Your task to perform on an android device: Go to network settings Image 0: 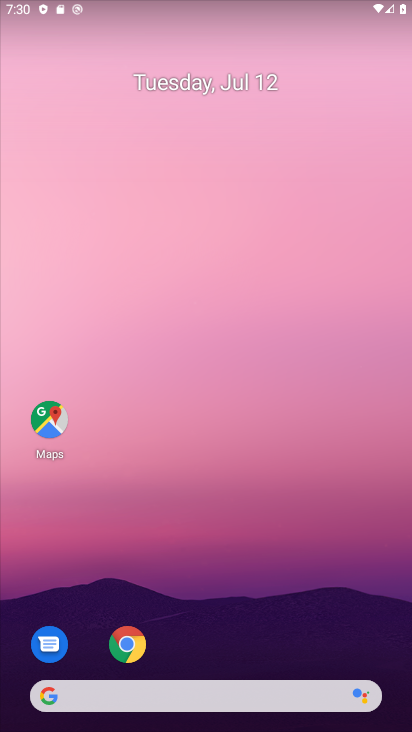
Step 0: drag from (225, 677) to (408, 278)
Your task to perform on an android device: Go to network settings Image 1: 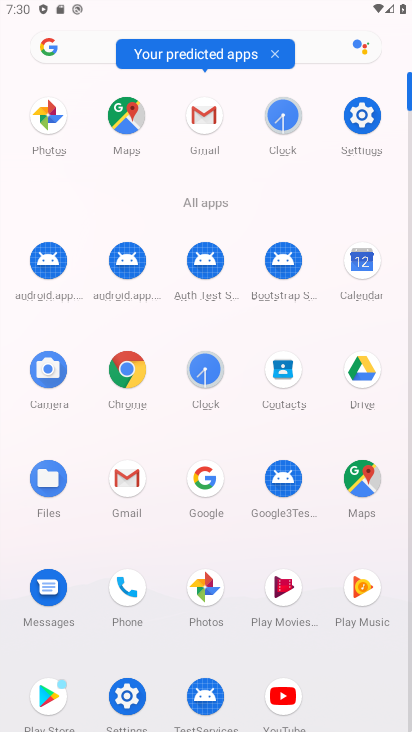
Step 1: click (368, 111)
Your task to perform on an android device: Go to network settings Image 2: 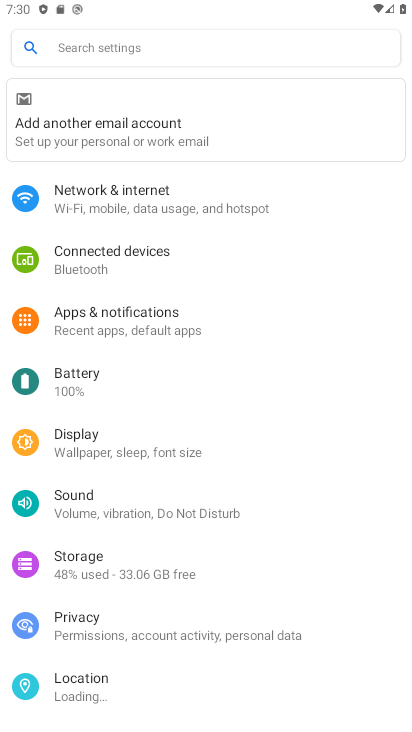
Step 2: click (120, 198)
Your task to perform on an android device: Go to network settings Image 3: 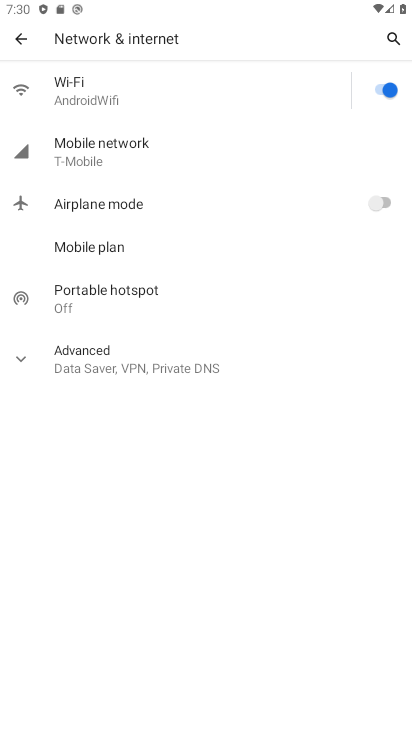
Step 3: click (97, 365)
Your task to perform on an android device: Go to network settings Image 4: 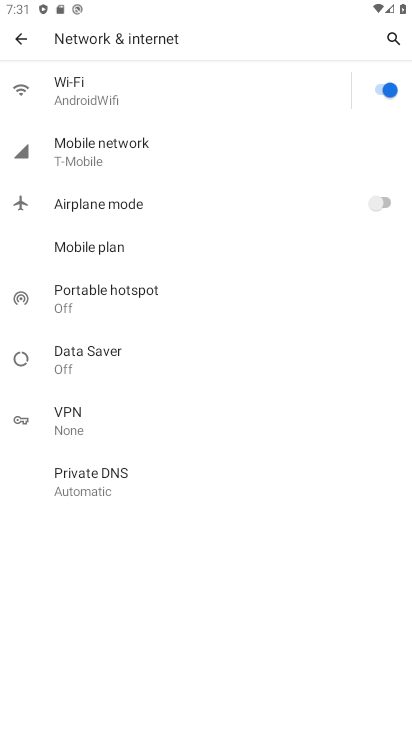
Step 4: task complete